Your task to perform on an android device: empty trash in the gmail app Image 0: 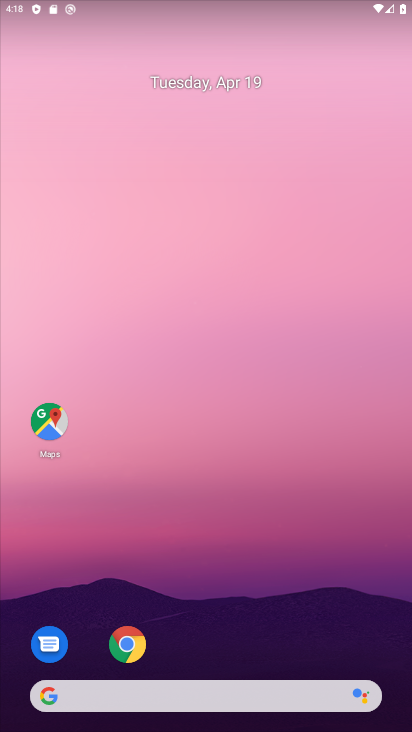
Step 0: drag from (295, 228) to (299, 118)
Your task to perform on an android device: empty trash in the gmail app Image 1: 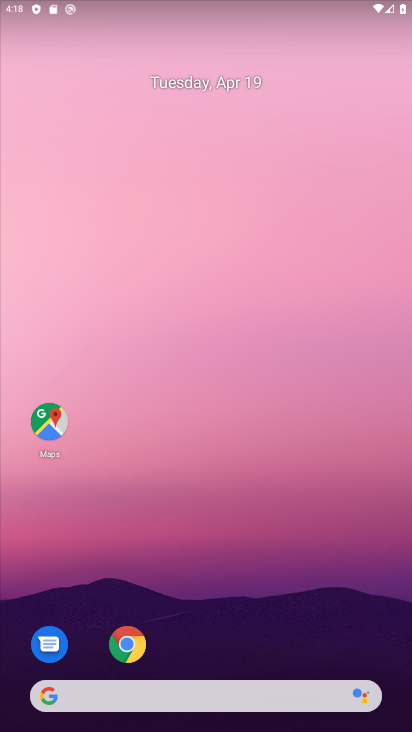
Step 1: drag from (272, 612) to (287, 296)
Your task to perform on an android device: empty trash in the gmail app Image 2: 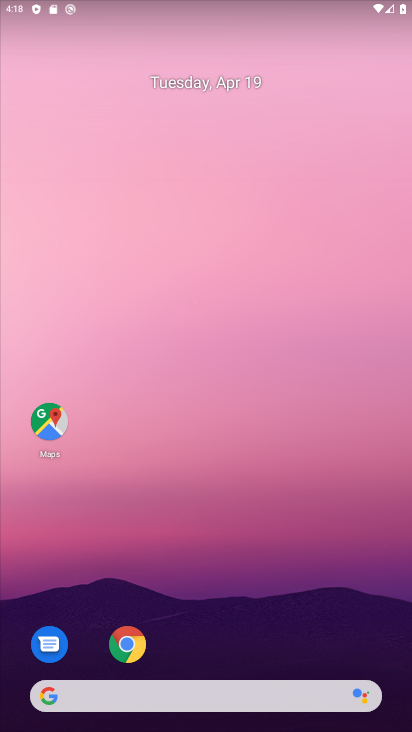
Step 2: drag from (250, 652) to (227, 148)
Your task to perform on an android device: empty trash in the gmail app Image 3: 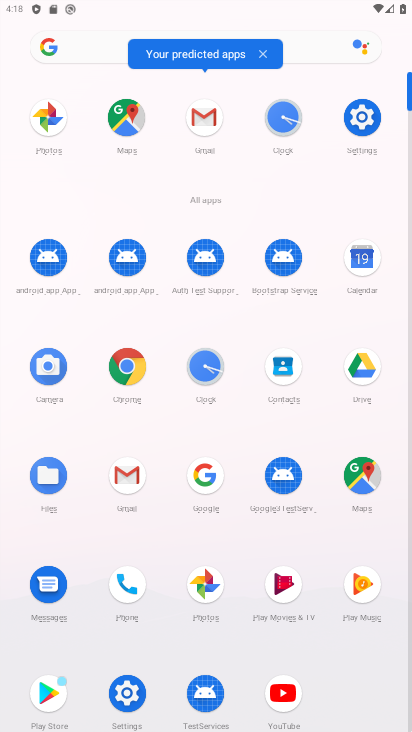
Step 3: click (208, 124)
Your task to perform on an android device: empty trash in the gmail app Image 4: 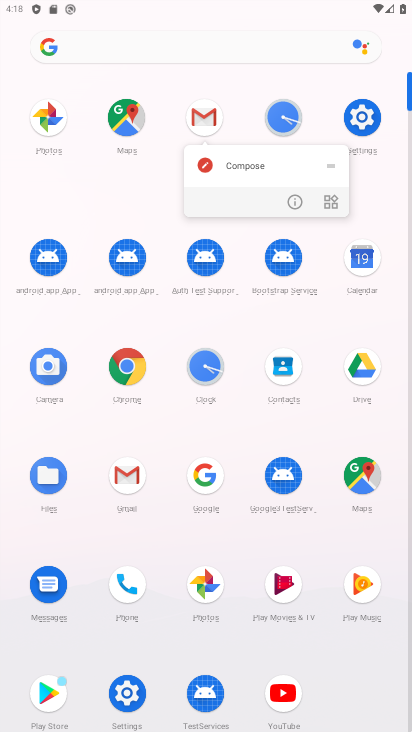
Step 4: click (203, 128)
Your task to perform on an android device: empty trash in the gmail app Image 5: 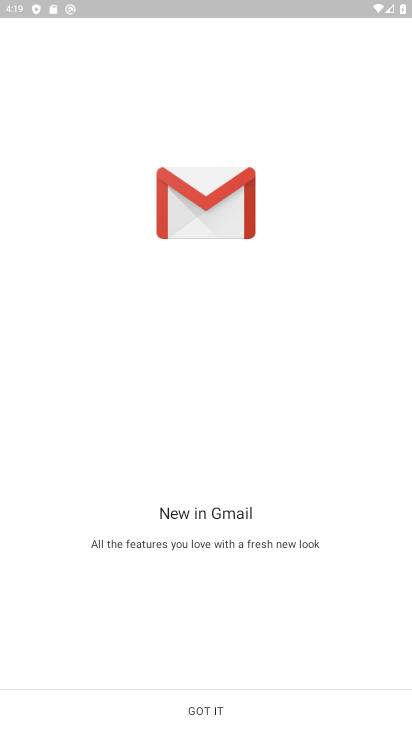
Step 5: click (210, 722)
Your task to perform on an android device: empty trash in the gmail app Image 6: 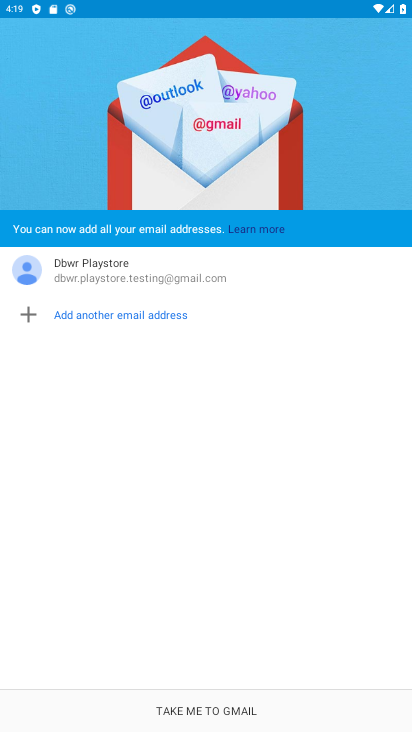
Step 6: click (194, 709)
Your task to perform on an android device: empty trash in the gmail app Image 7: 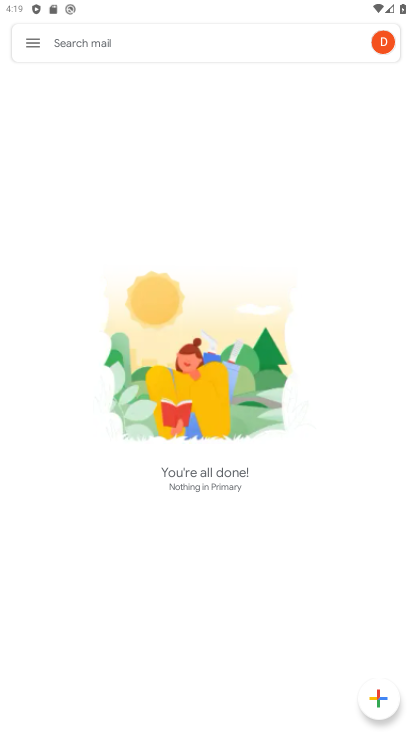
Step 7: click (26, 45)
Your task to perform on an android device: empty trash in the gmail app Image 8: 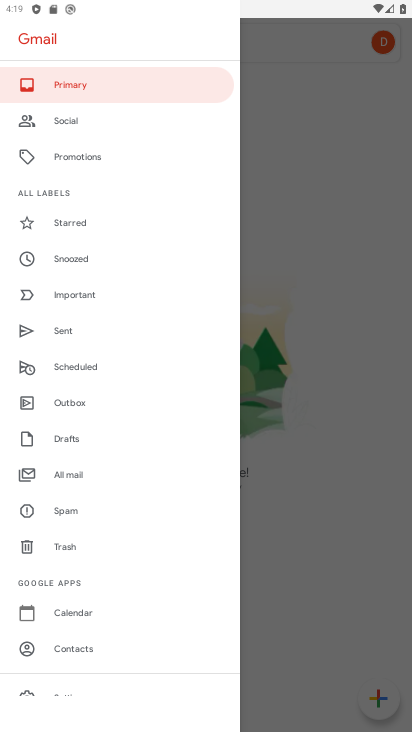
Step 8: click (69, 547)
Your task to perform on an android device: empty trash in the gmail app Image 9: 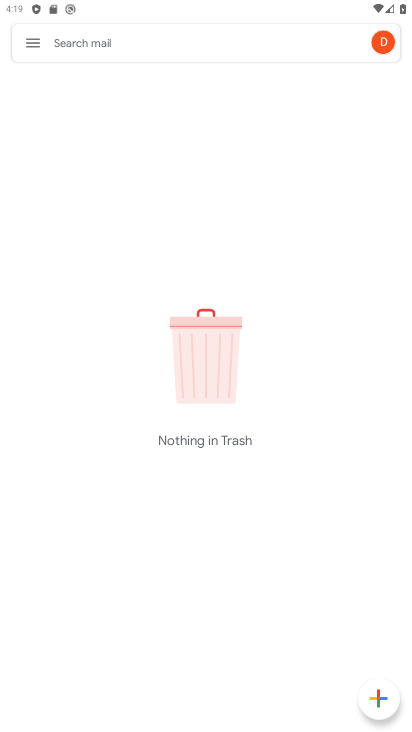
Step 9: task complete